Your task to perform on an android device: Go to accessibility settings Image 0: 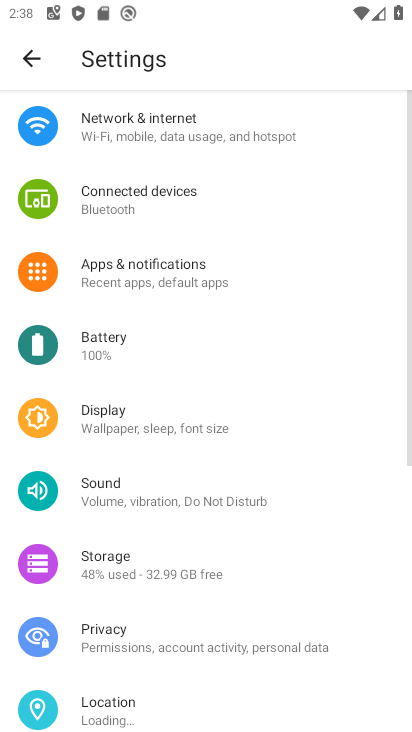
Step 0: press home button
Your task to perform on an android device: Go to accessibility settings Image 1: 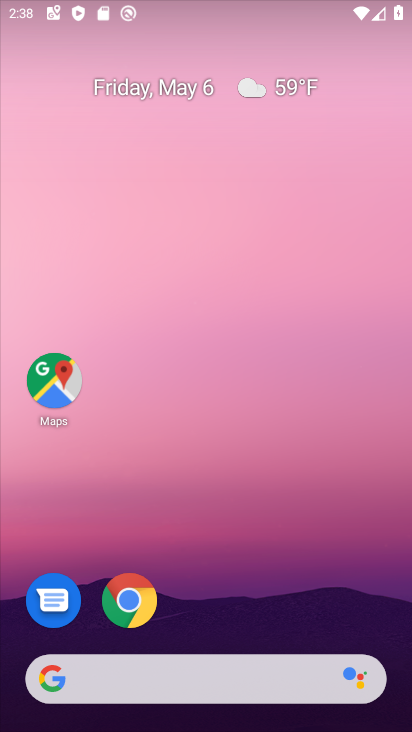
Step 1: drag from (226, 572) to (273, 5)
Your task to perform on an android device: Go to accessibility settings Image 2: 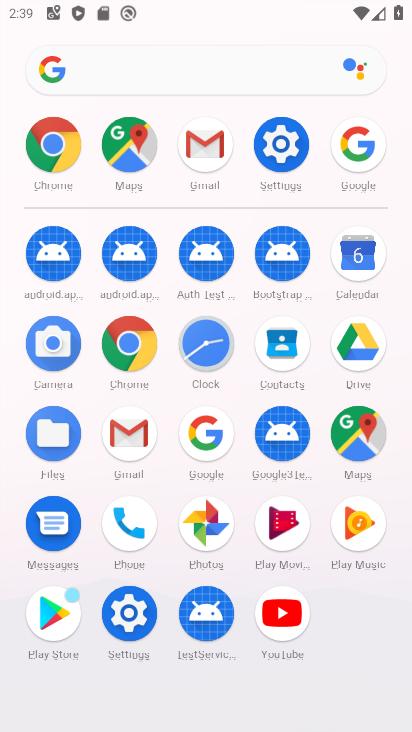
Step 2: click (278, 142)
Your task to perform on an android device: Go to accessibility settings Image 3: 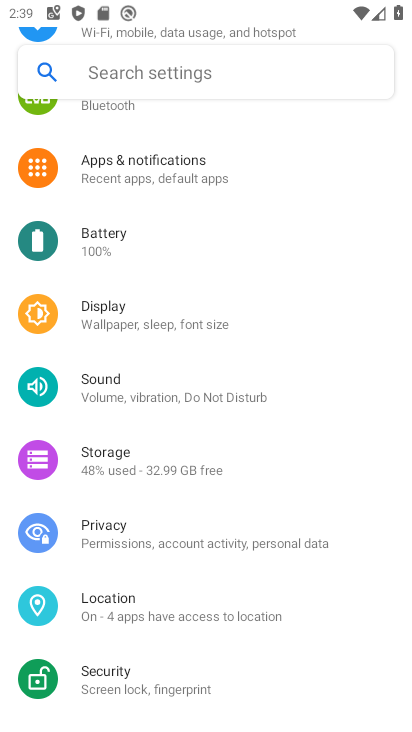
Step 3: drag from (214, 638) to (273, 132)
Your task to perform on an android device: Go to accessibility settings Image 4: 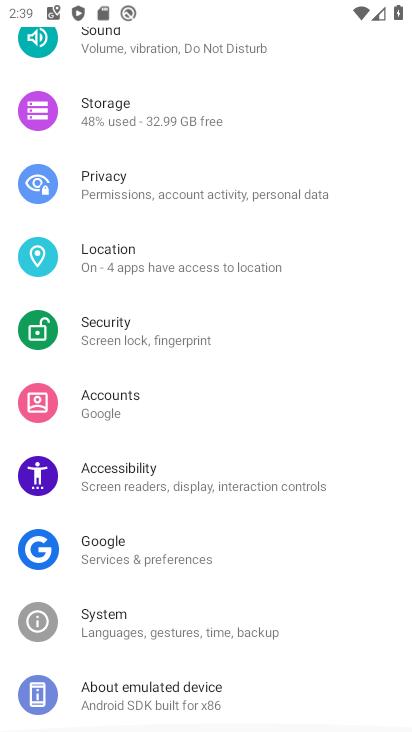
Step 4: click (152, 474)
Your task to perform on an android device: Go to accessibility settings Image 5: 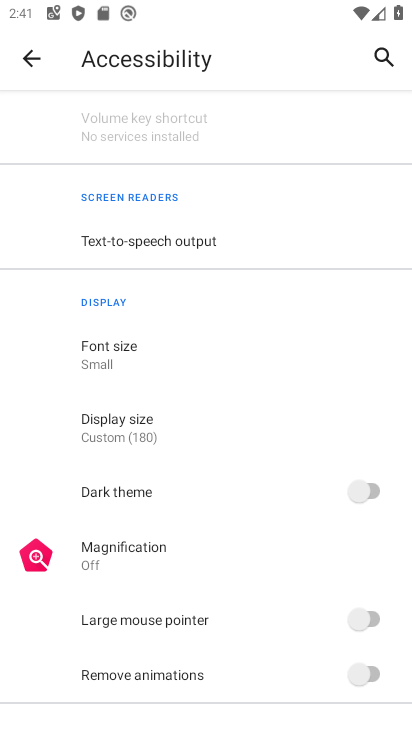
Step 5: task complete